Your task to perform on an android device: Open internet settings Image 0: 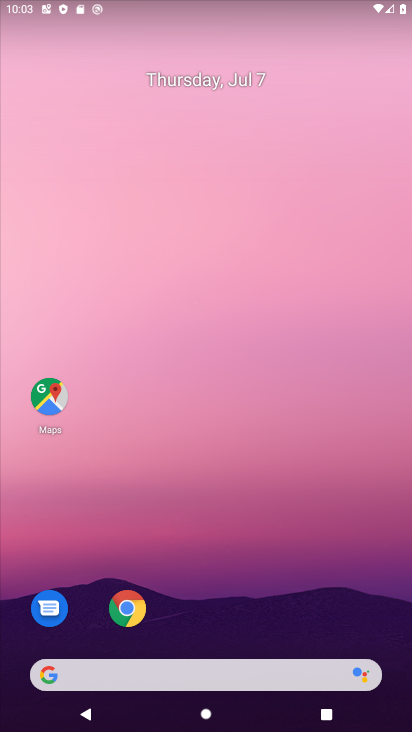
Step 0: drag from (196, 632) to (187, 72)
Your task to perform on an android device: Open internet settings Image 1: 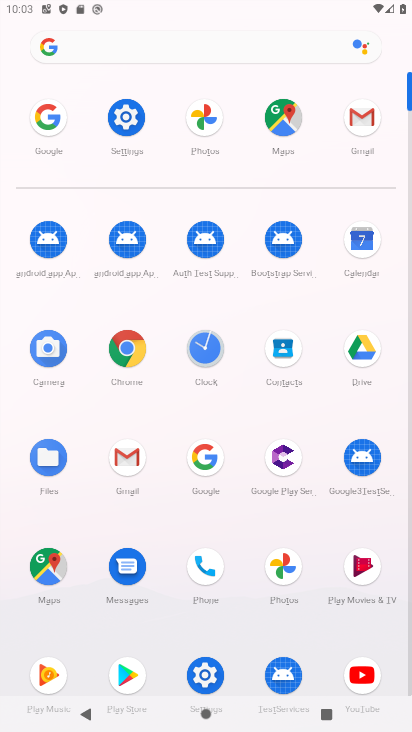
Step 1: click (125, 107)
Your task to perform on an android device: Open internet settings Image 2: 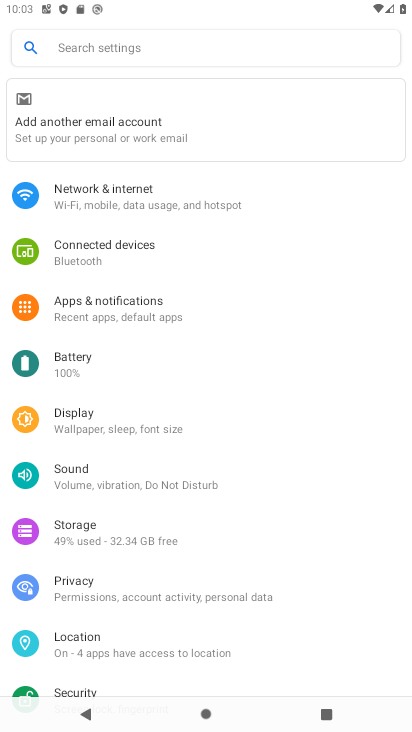
Step 2: click (131, 210)
Your task to perform on an android device: Open internet settings Image 3: 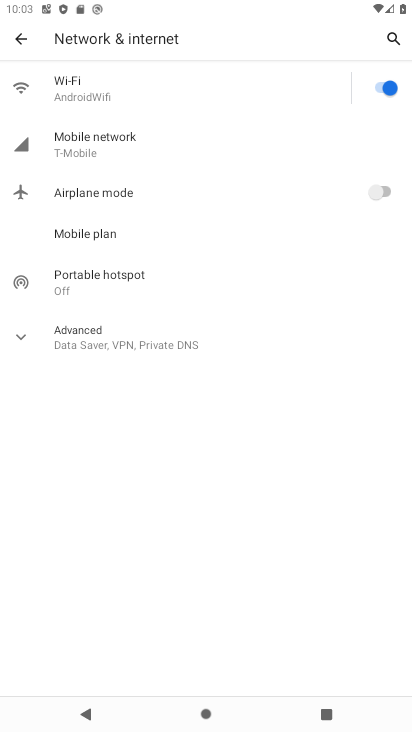
Step 3: click (111, 83)
Your task to perform on an android device: Open internet settings Image 4: 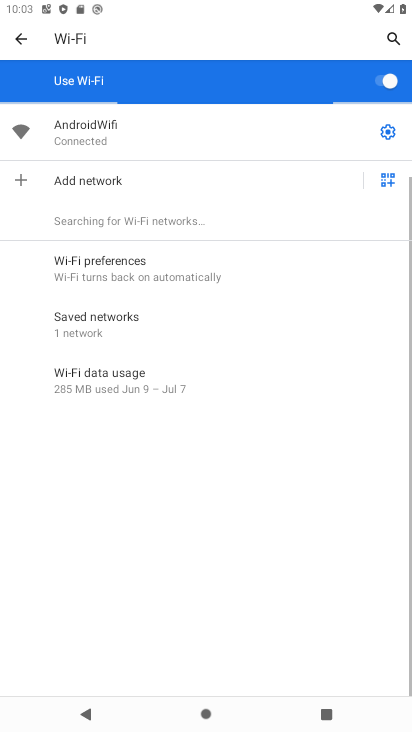
Step 4: click (152, 141)
Your task to perform on an android device: Open internet settings Image 5: 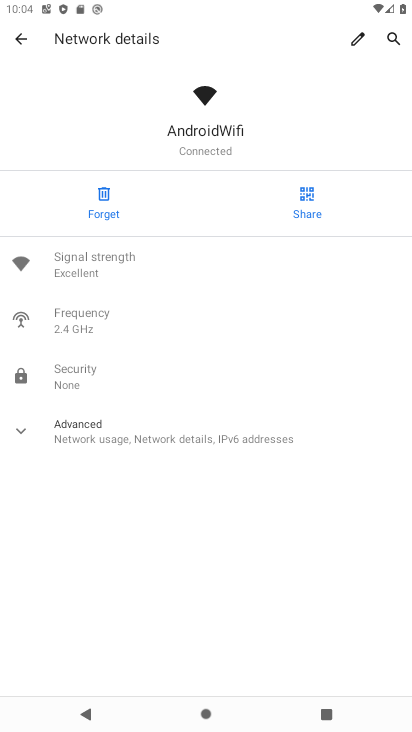
Step 5: task complete